Your task to perform on an android device: change alarm snooze length Image 0: 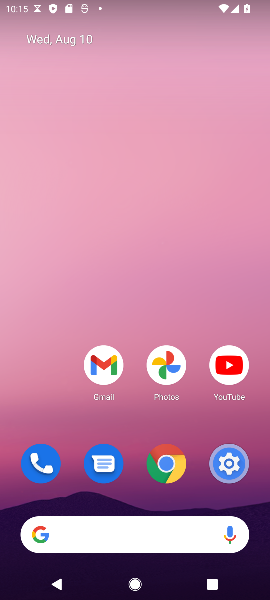
Step 0: click (112, 367)
Your task to perform on an android device: change alarm snooze length Image 1: 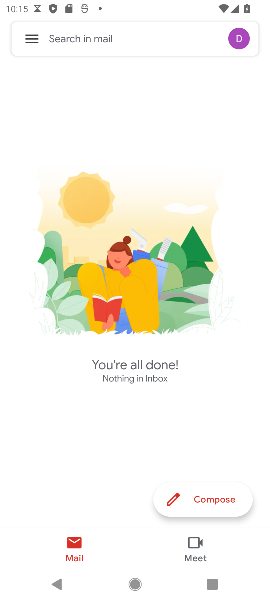
Step 1: click (28, 37)
Your task to perform on an android device: change alarm snooze length Image 2: 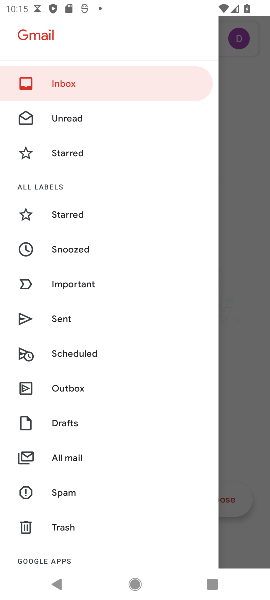
Step 2: click (69, 255)
Your task to perform on an android device: change alarm snooze length Image 3: 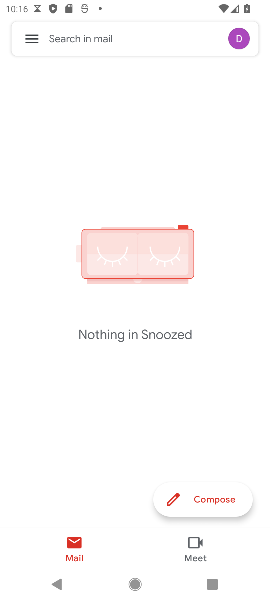
Step 3: task complete